Your task to perform on an android device: Show the shopping cart on newegg.com. Search for corsair k70 on newegg.com, select the first entry, and add it to the cart. Image 0: 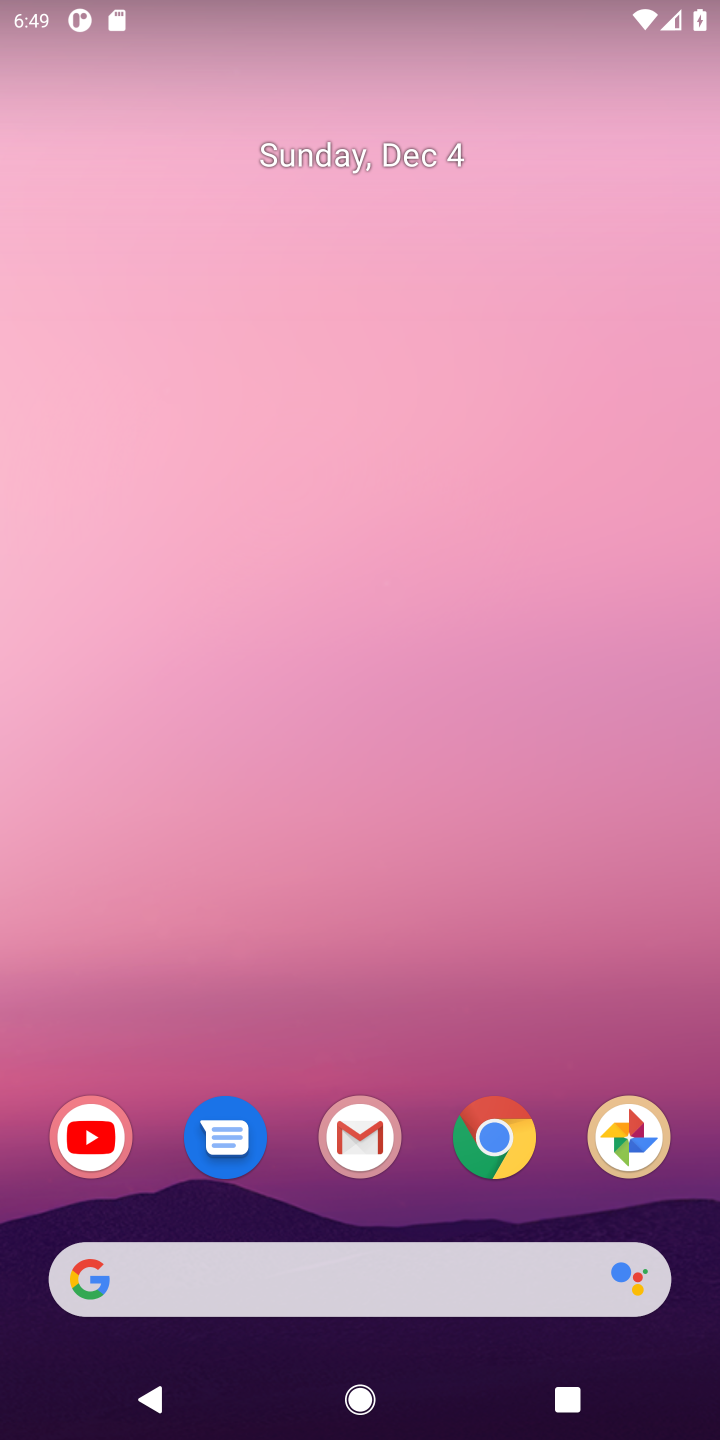
Step 0: click (485, 1143)
Your task to perform on an android device: Show the shopping cart on newegg.com. Search for corsair k70 on newegg.com, select the first entry, and add it to the cart. Image 1: 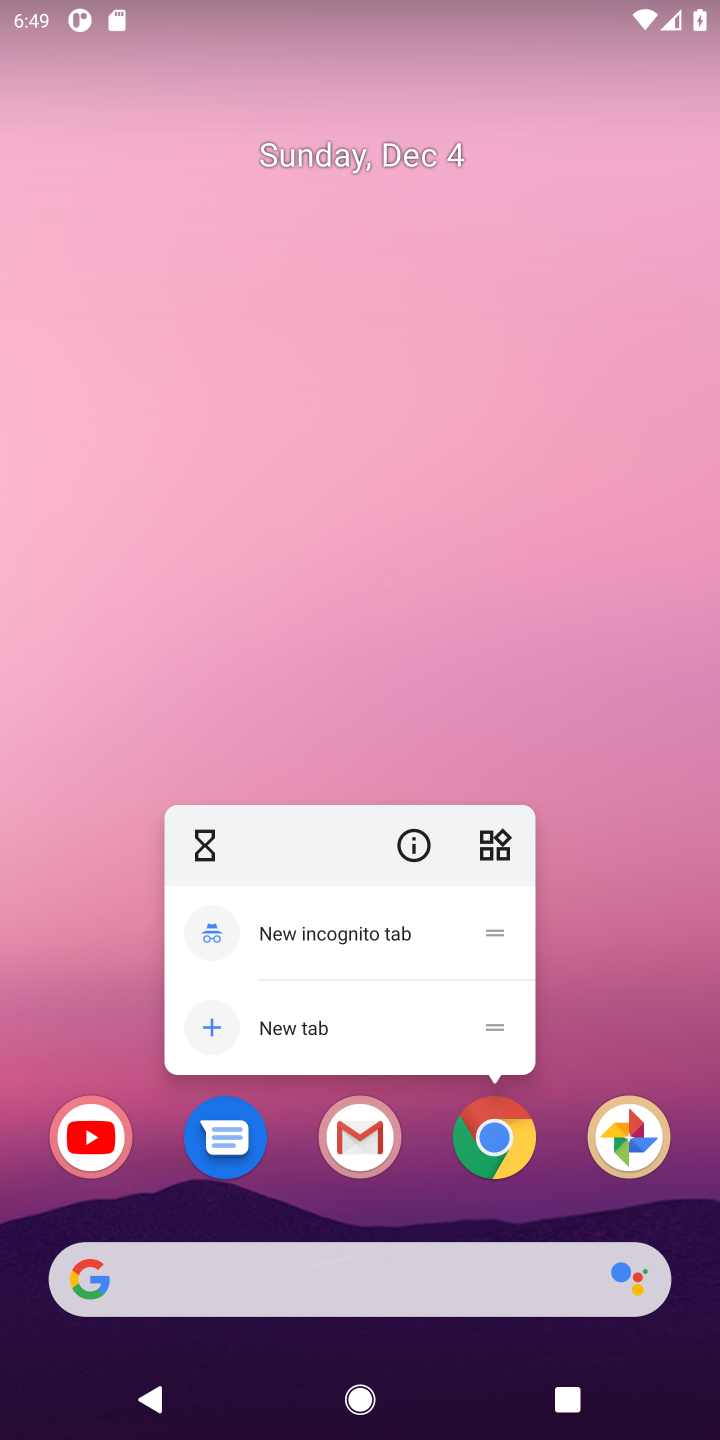
Step 1: click (490, 1144)
Your task to perform on an android device: Show the shopping cart on newegg.com. Search for corsair k70 on newegg.com, select the first entry, and add it to the cart. Image 2: 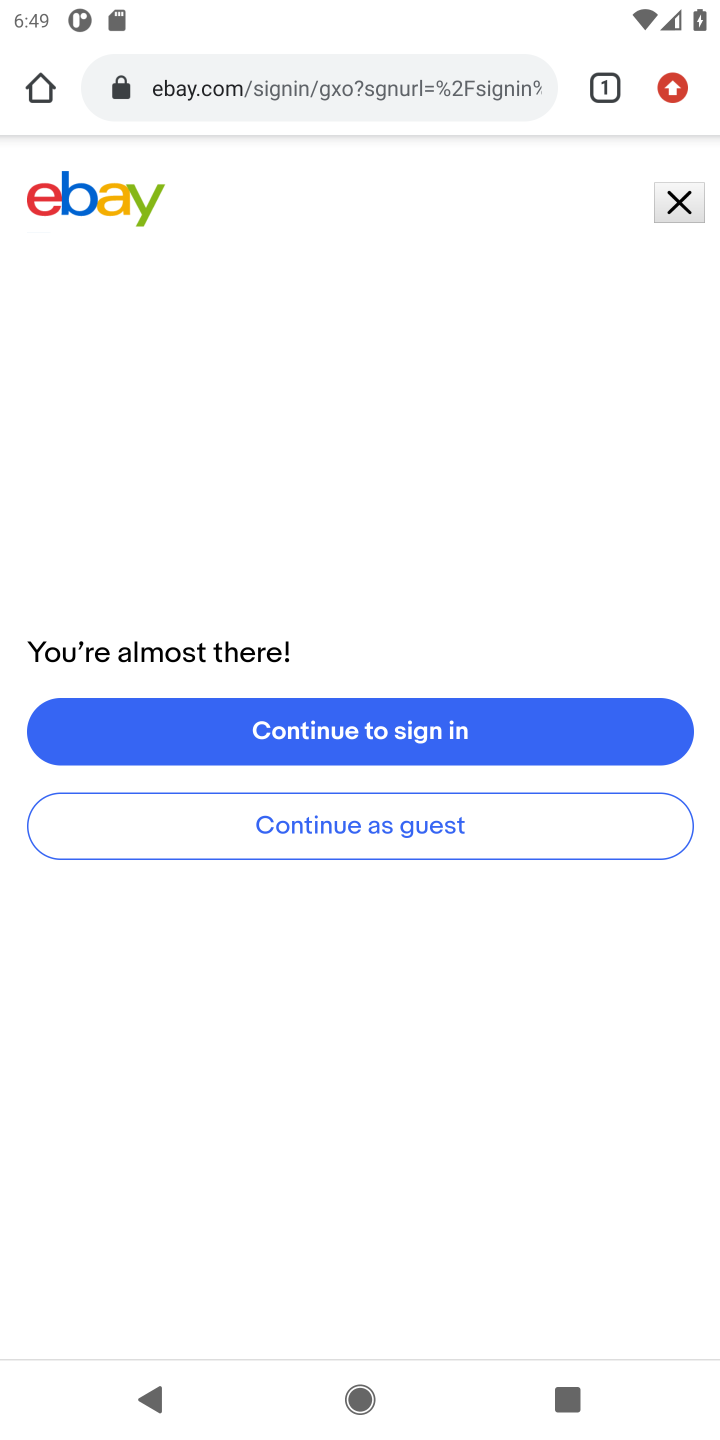
Step 2: click (333, 62)
Your task to perform on an android device: Show the shopping cart on newegg.com. Search for corsair k70 on newegg.com, select the first entry, and add it to the cart. Image 3: 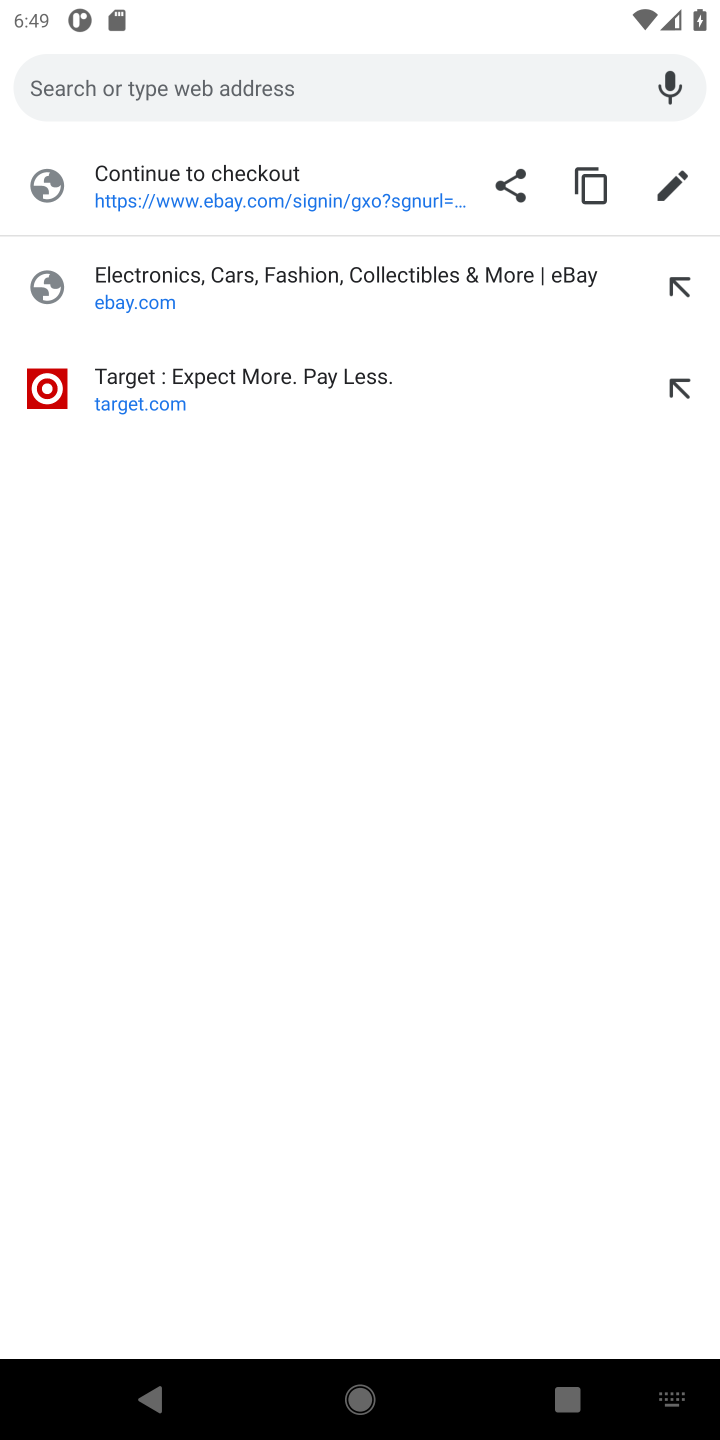
Step 3: type "newegg.com"
Your task to perform on an android device: Show the shopping cart on newegg.com. Search for corsair k70 on newegg.com, select the first entry, and add it to the cart. Image 4: 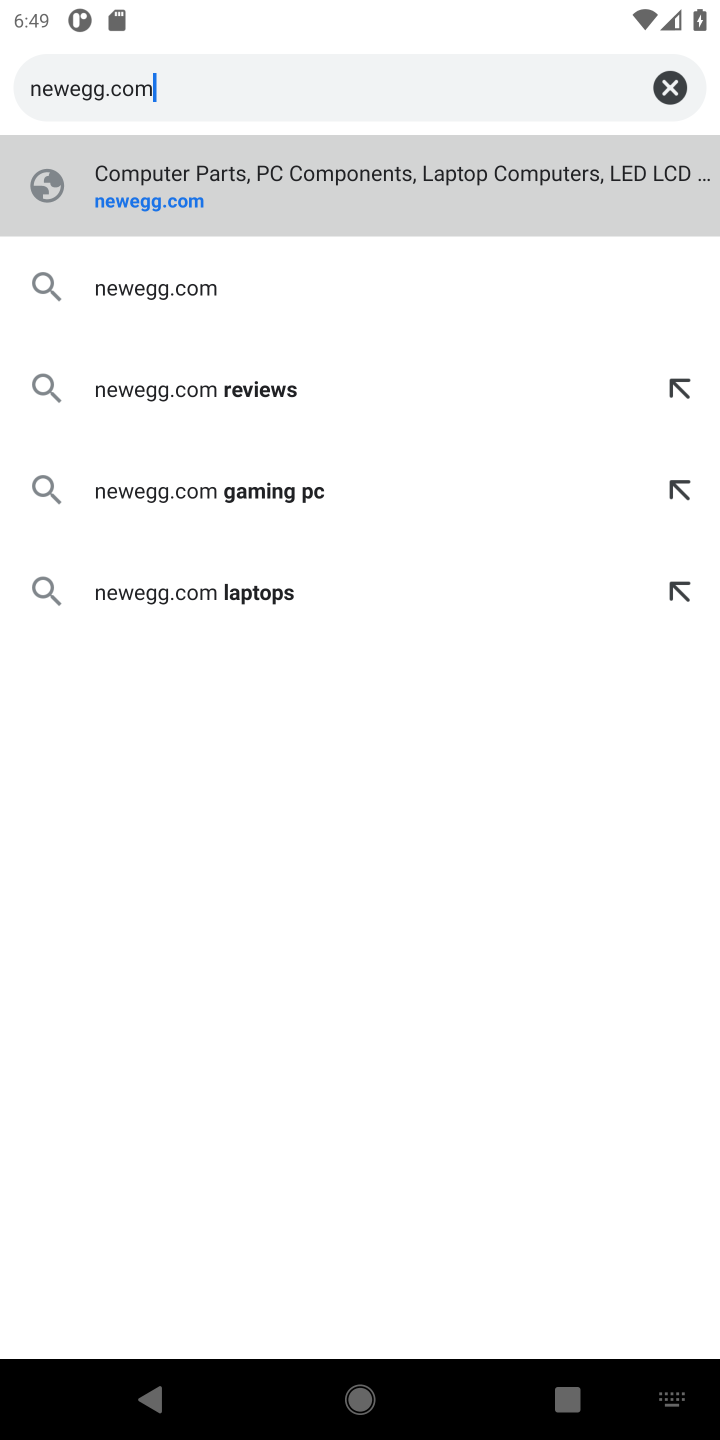
Step 4: click (183, 169)
Your task to perform on an android device: Show the shopping cart on newegg.com. Search for corsair k70 on newegg.com, select the first entry, and add it to the cart. Image 5: 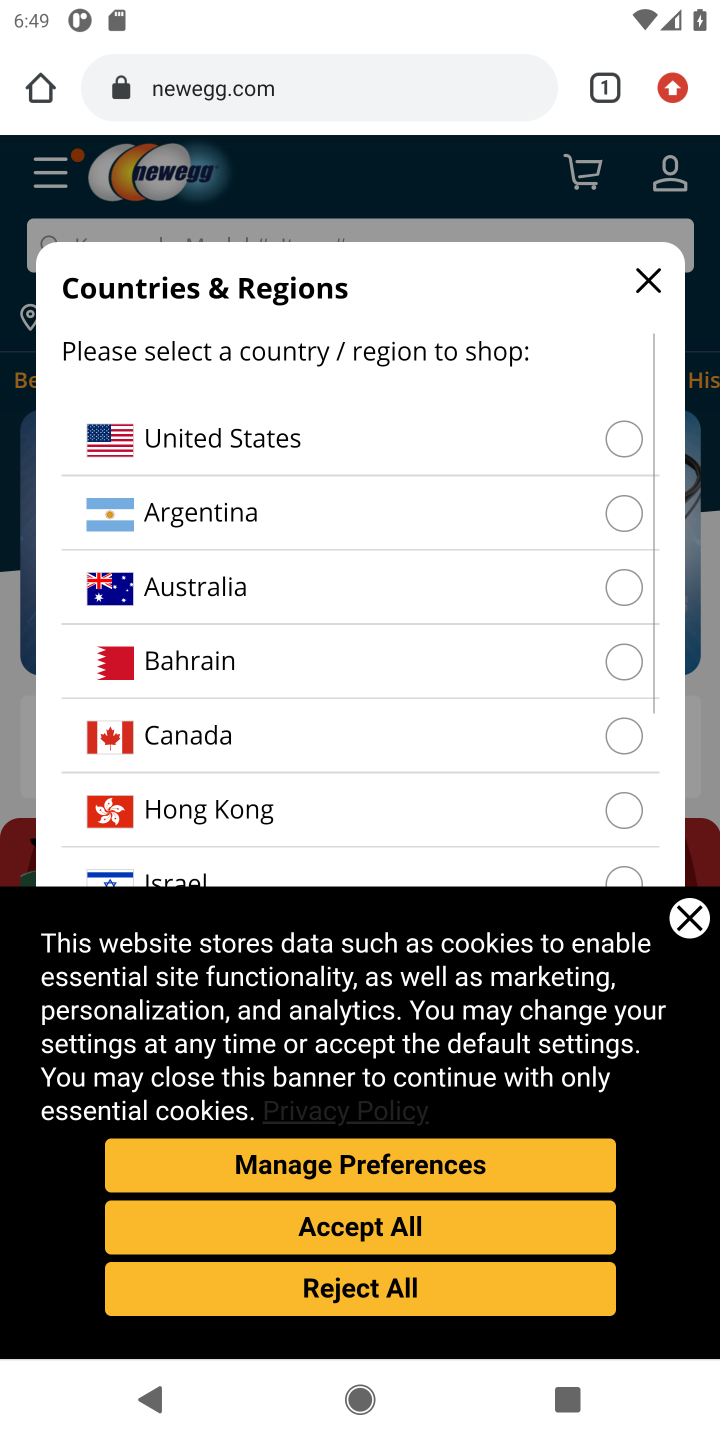
Step 5: click (618, 438)
Your task to perform on an android device: Show the shopping cart on newegg.com. Search for corsair k70 on newegg.com, select the first entry, and add it to the cart. Image 6: 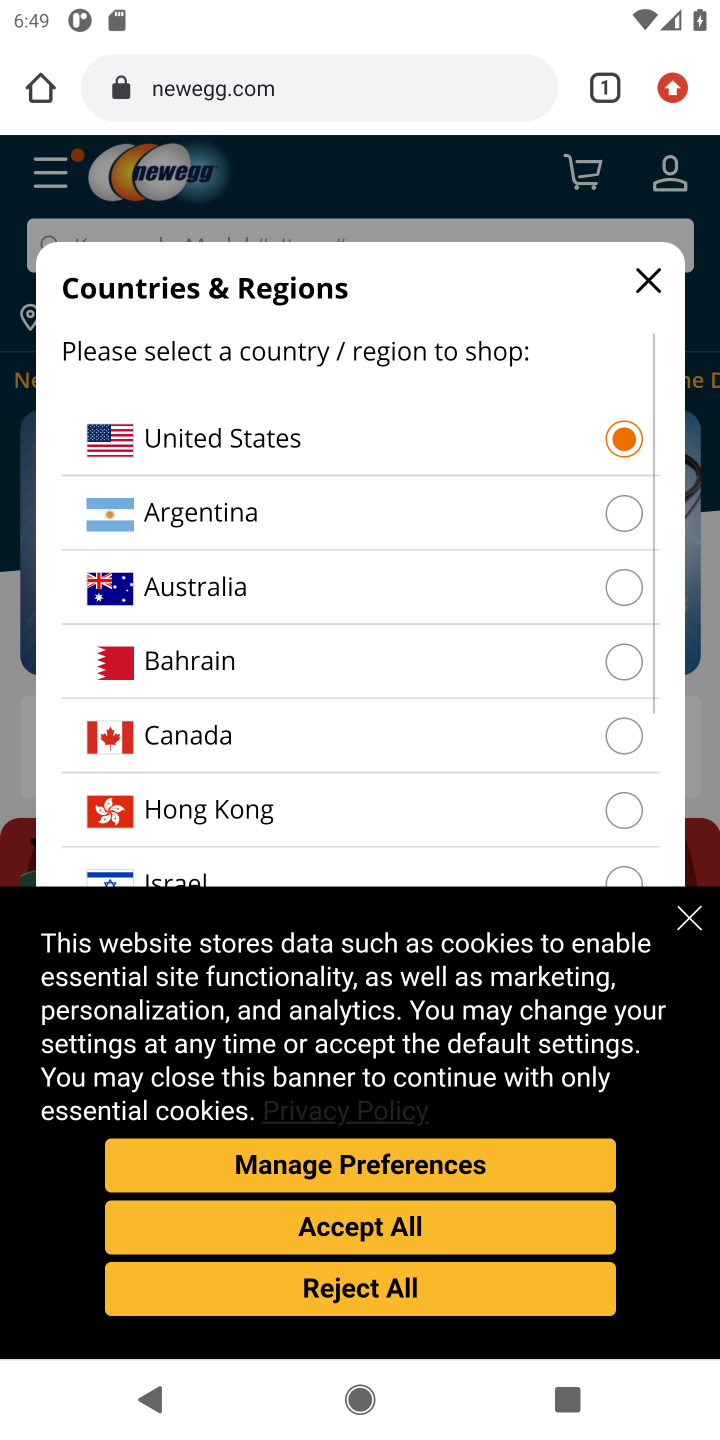
Step 6: click (375, 1222)
Your task to perform on an android device: Show the shopping cart on newegg.com. Search for corsair k70 on newegg.com, select the first entry, and add it to the cart. Image 7: 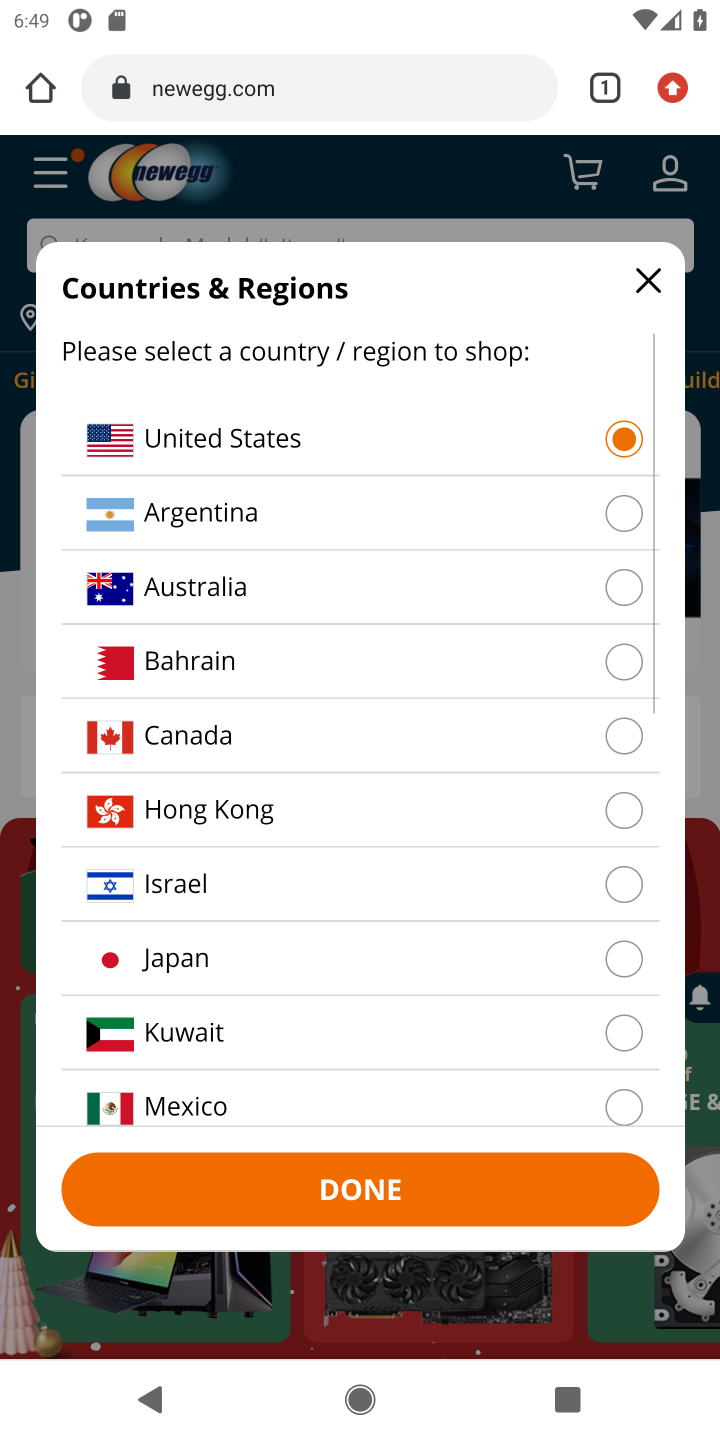
Step 7: click (350, 1188)
Your task to perform on an android device: Show the shopping cart on newegg.com. Search for corsair k70 on newegg.com, select the first entry, and add it to the cart. Image 8: 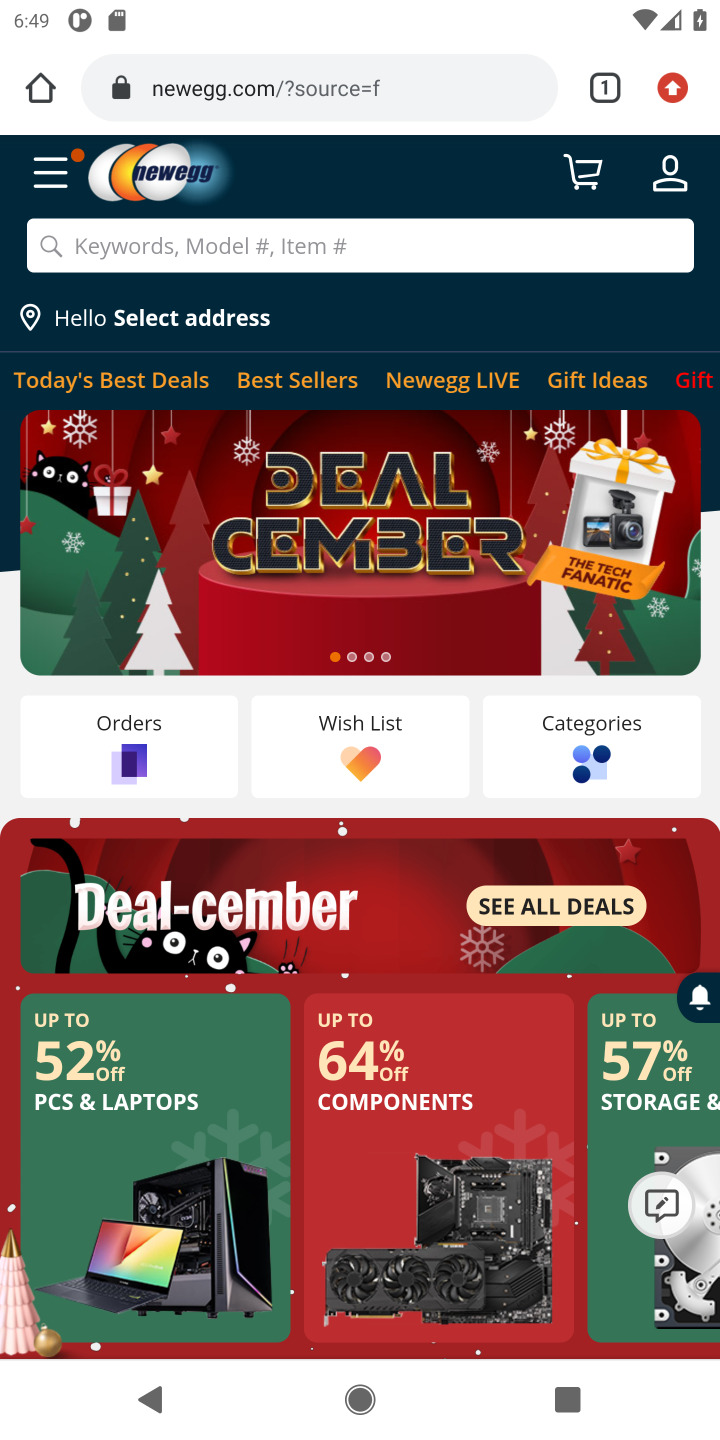
Step 8: click (153, 240)
Your task to perform on an android device: Show the shopping cart on newegg.com. Search for corsair k70 on newegg.com, select the first entry, and add it to the cart. Image 9: 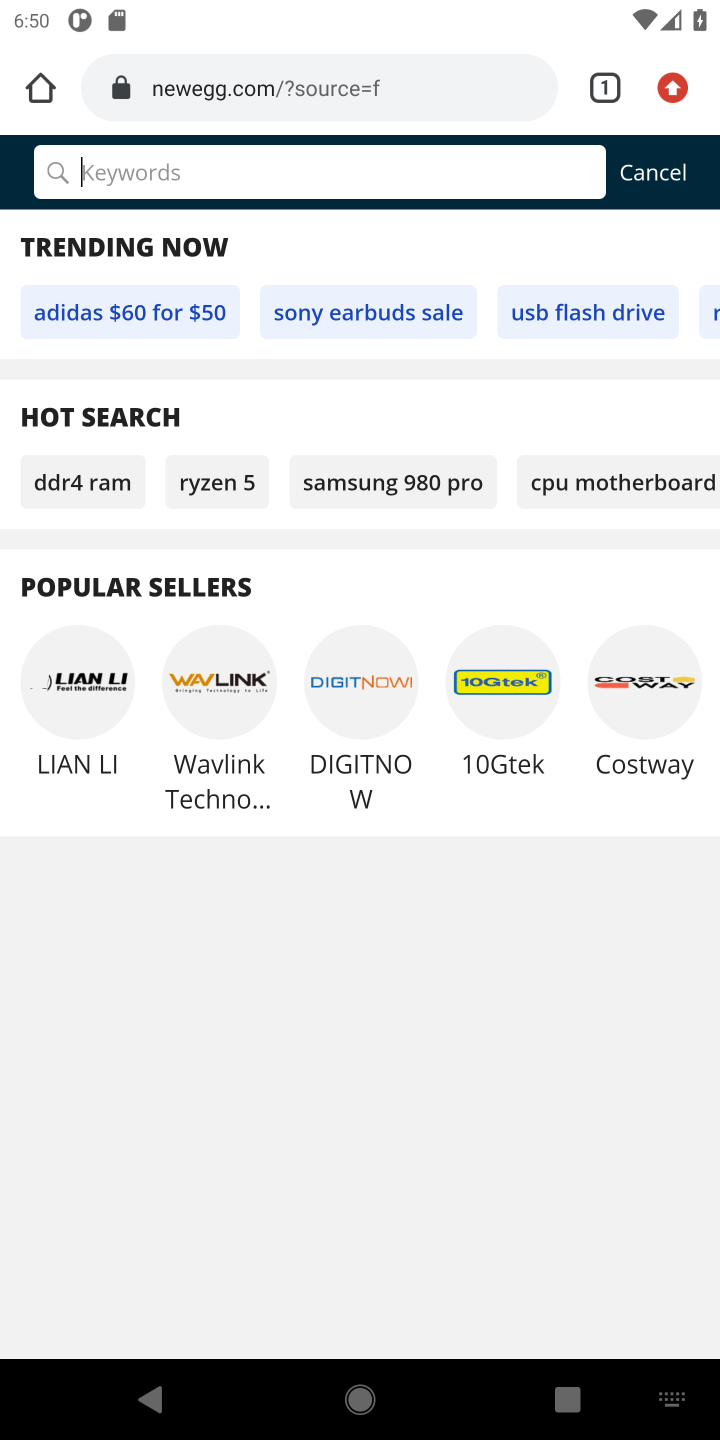
Step 9: type "corsair k70"
Your task to perform on an android device: Show the shopping cart on newegg.com. Search for corsair k70 on newegg.com, select the first entry, and add it to the cart. Image 10: 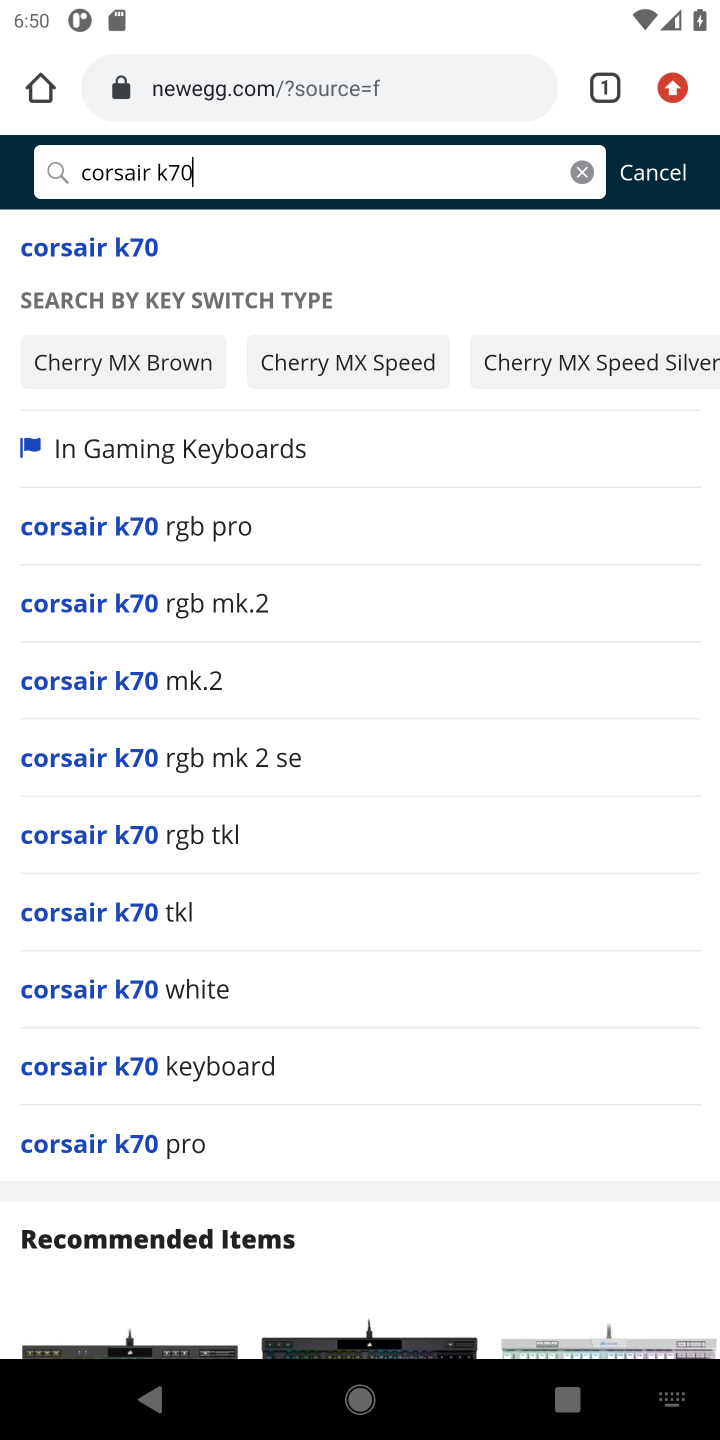
Step 10: click (84, 250)
Your task to perform on an android device: Show the shopping cart on newegg.com. Search for corsair k70 on newegg.com, select the first entry, and add it to the cart. Image 11: 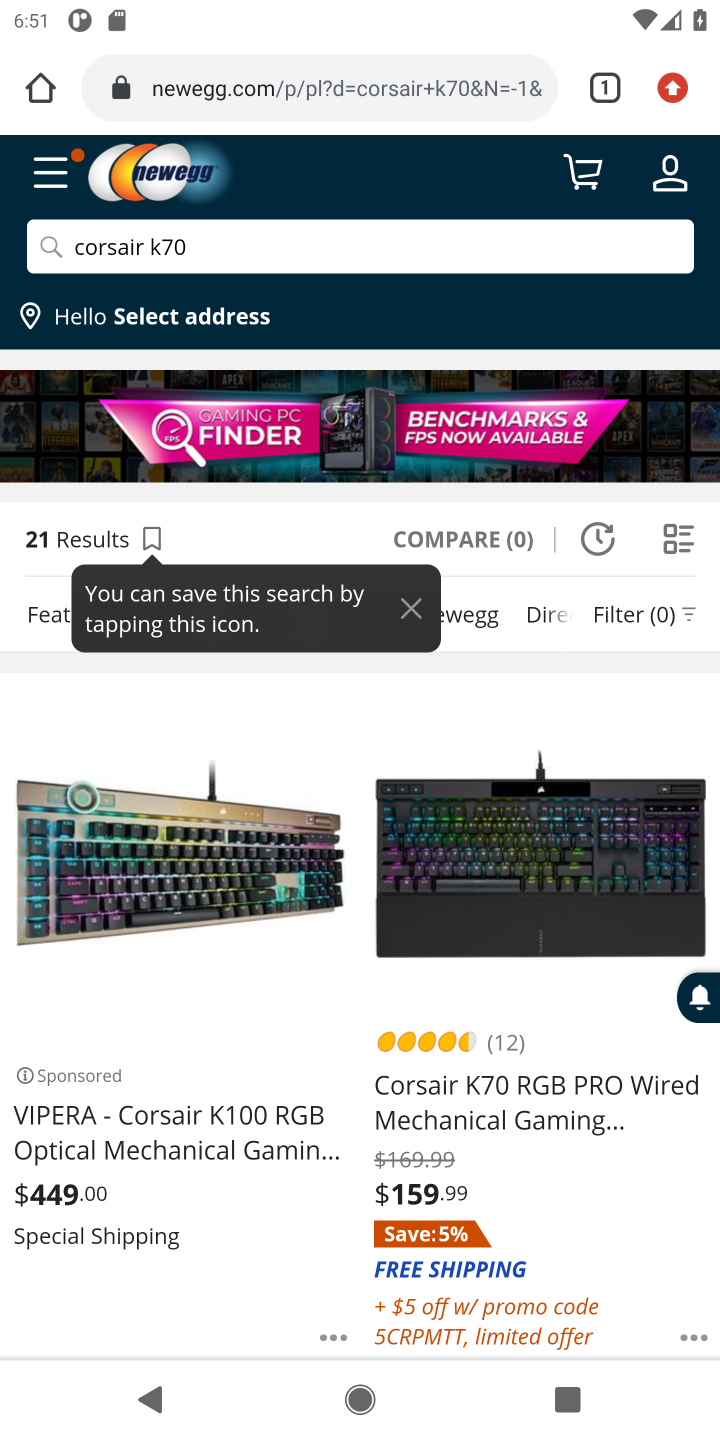
Step 11: click (562, 1085)
Your task to perform on an android device: Show the shopping cart on newegg.com. Search for corsair k70 on newegg.com, select the first entry, and add it to the cart. Image 12: 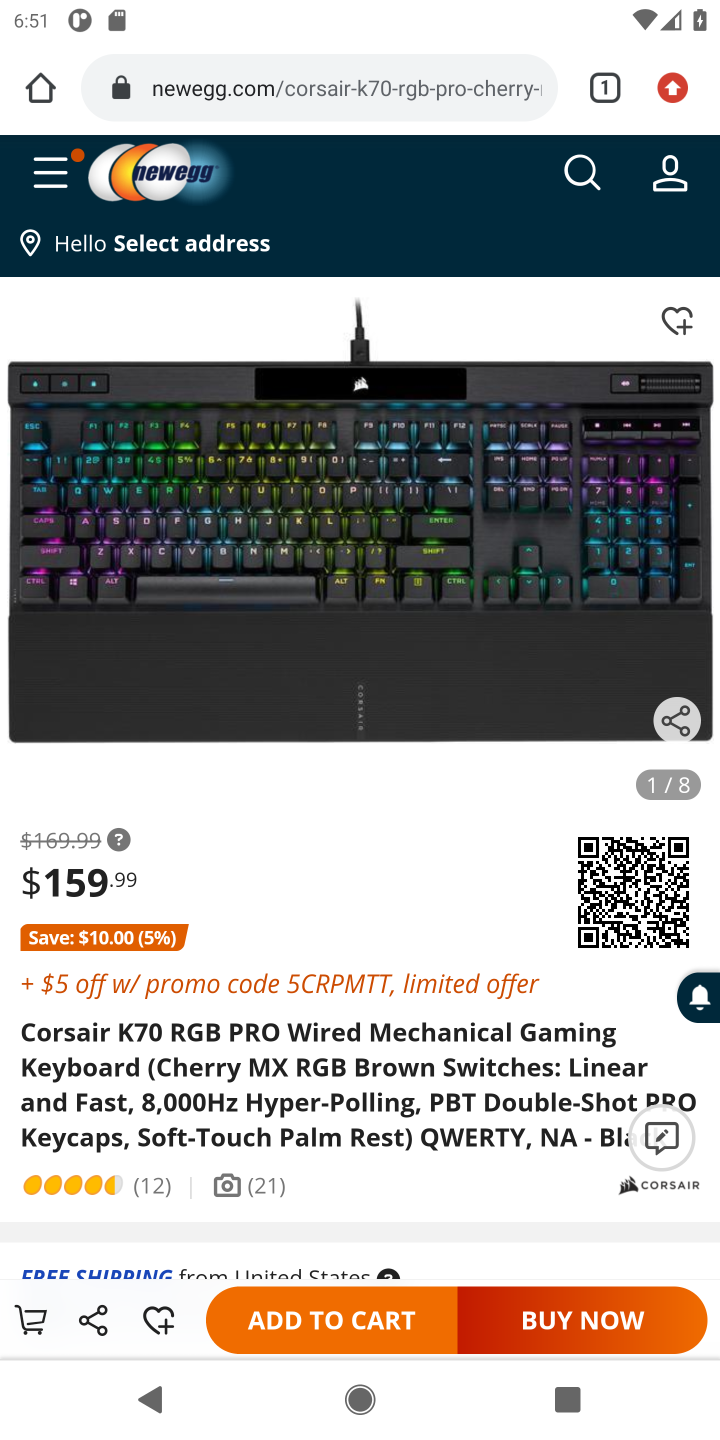
Step 12: click (310, 1315)
Your task to perform on an android device: Show the shopping cart on newegg.com. Search for corsair k70 on newegg.com, select the first entry, and add it to the cart. Image 13: 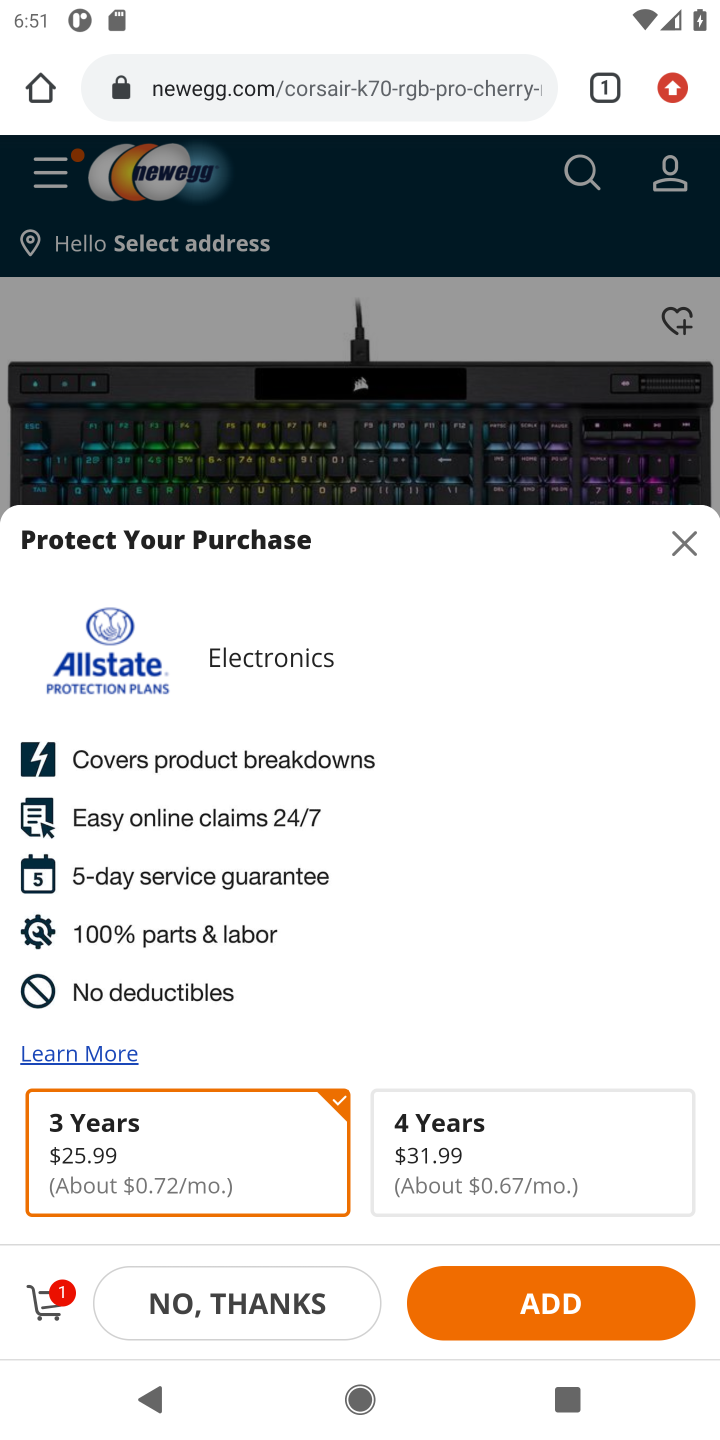
Step 13: click (194, 1304)
Your task to perform on an android device: Show the shopping cart on newegg.com. Search for corsair k70 on newegg.com, select the first entry, and add it to the cart. Image 14: 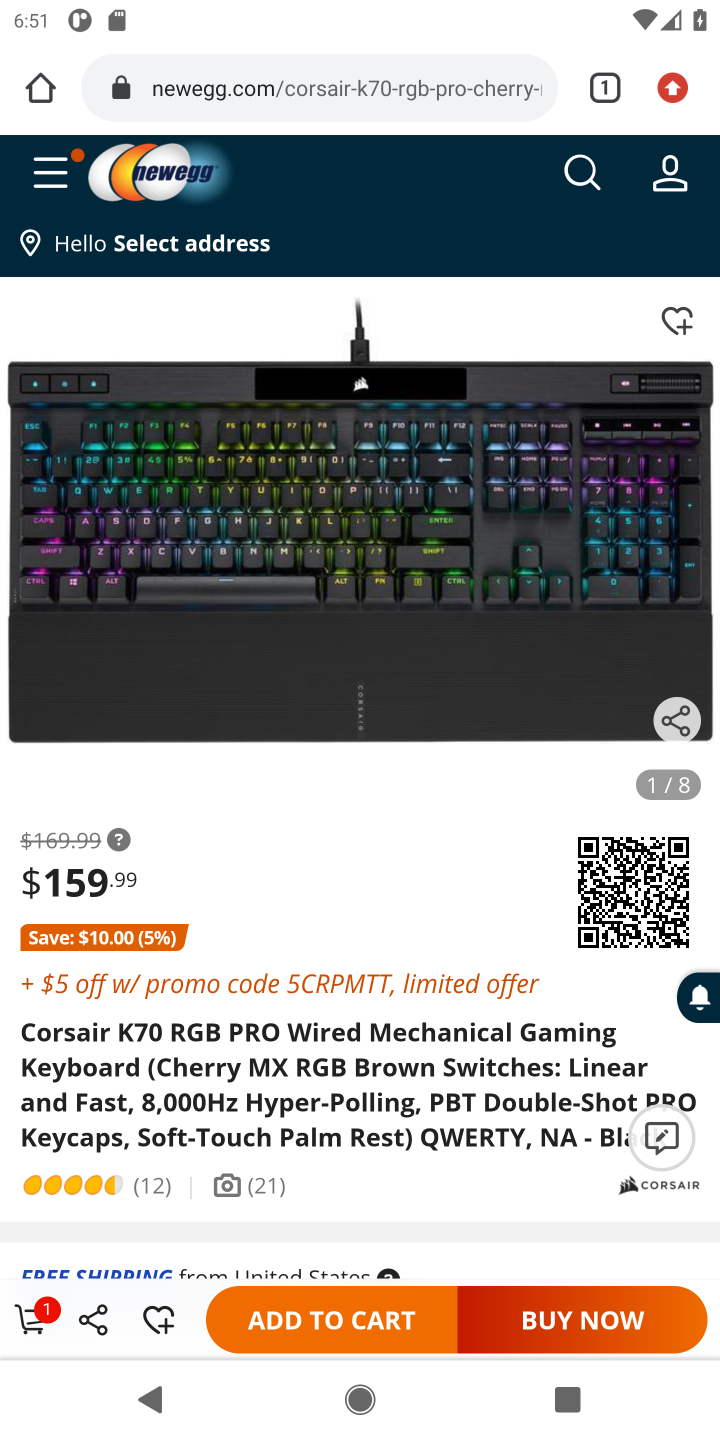
Step 14: task complete